Your task to perform on an android device: change timer sound Image 0: 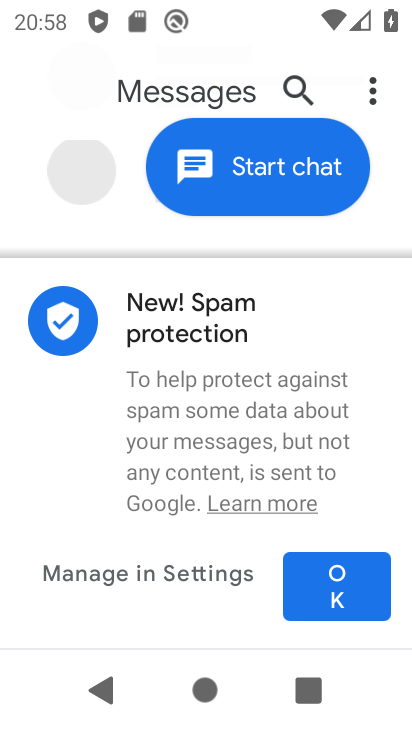
Step 0: press home button
Your task to perform on an android device: change timer sound Image 1: 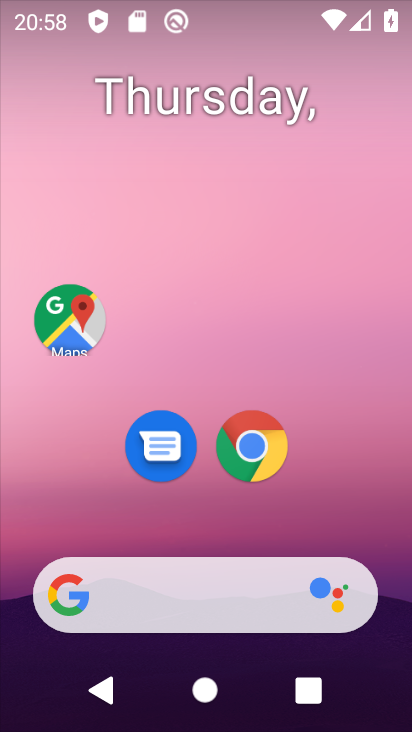
Step 1: drag from (385, 656) to (254, 161)
Your task to perform on an android device: change timer sound Image 2: 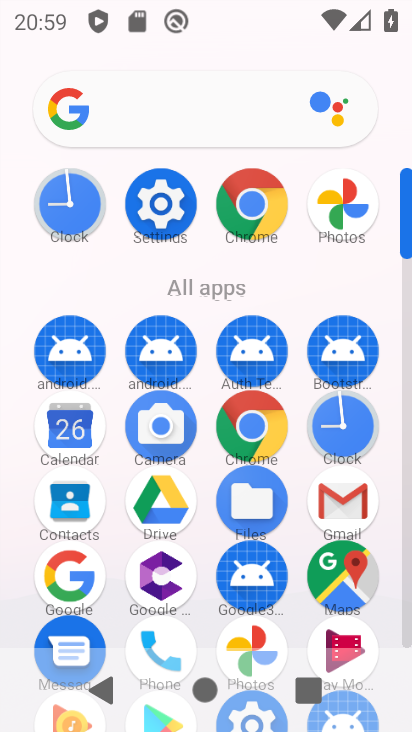
Step 2: click (323, 406)
Your task to perform on an android device: change timer sound Image 3: 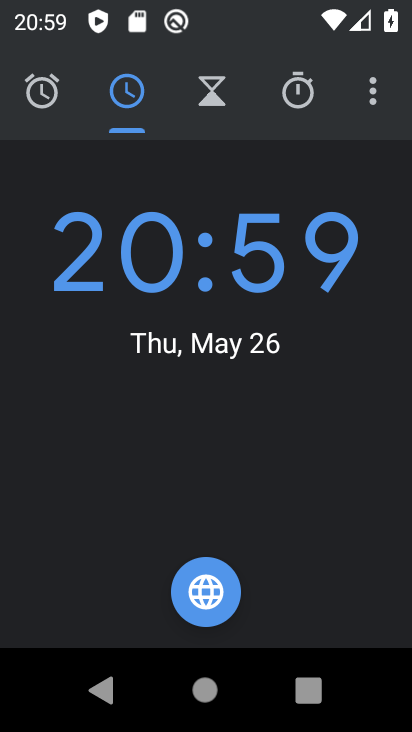
Step 3: click (379, 103)
Your task to perform on an android device: change timer sound Image 4: 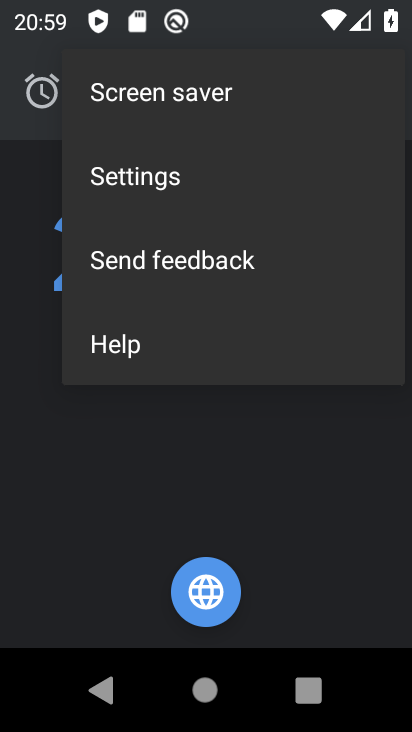
Step 4: click (102, 182)
Your task to perform on an android device: change timer sound Image 5: 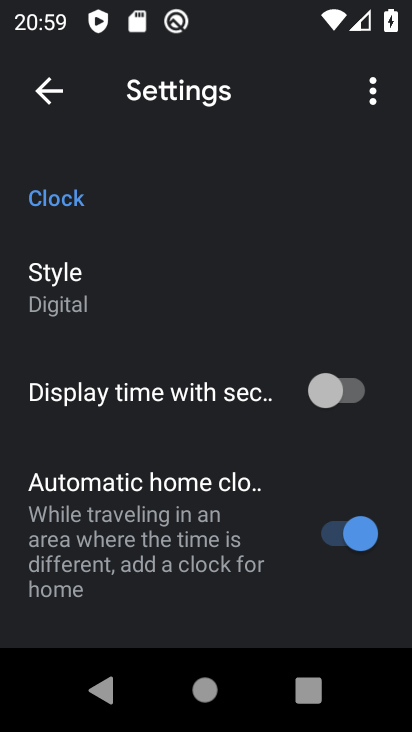
Step 5: drag from (218, 487) to (263, 140)
Your task to perform on an android device: change timer sound Image 6: 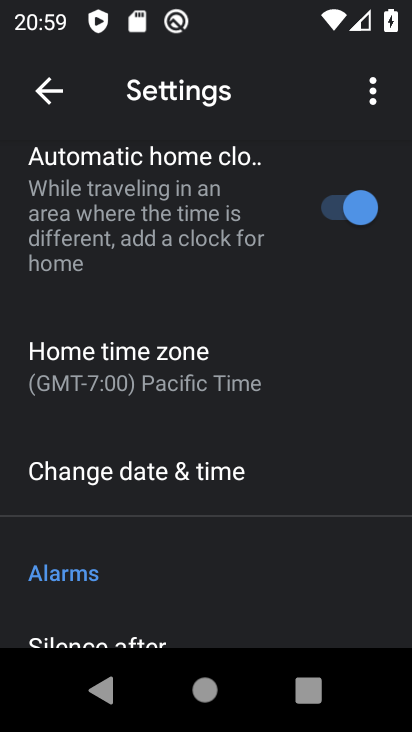
Step 6: drag from (300, 371) to (288, 86)
Your task to perform on an android device: change timer sound Image 7: 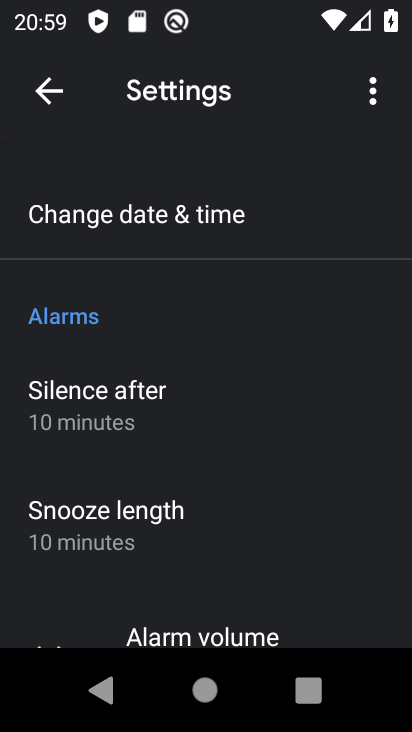
Step 7: drag from (378, 470) to (363, 84)
Your task to perform on an android device: change timer sound Image 8: 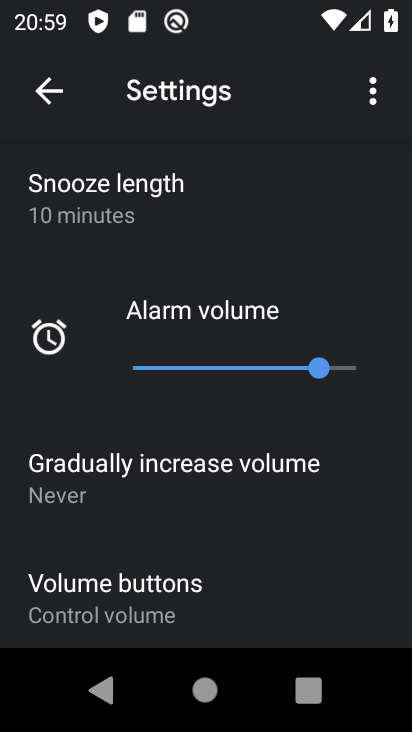
Step 8: drag from (238, 560) to (312, 120)
Your task to perform on an android device: change timer sound Image 9: 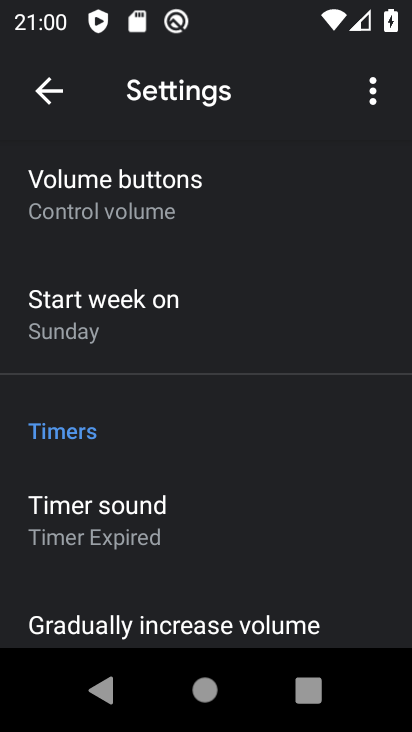
Step 9: click (193, 522)
Your task to perform on an android device: change timer sound Image 10: 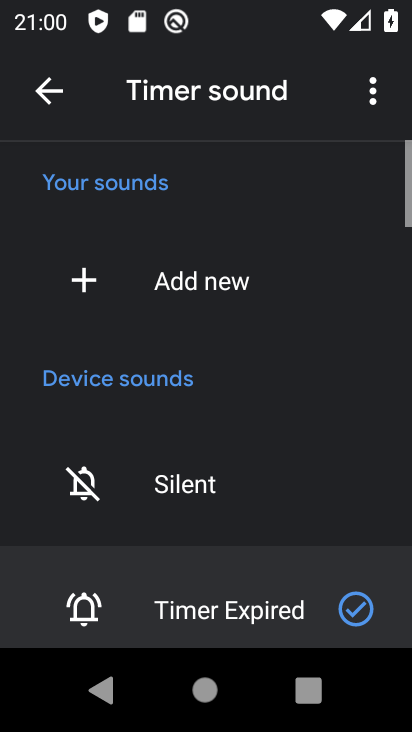
Step 10: drag from (193, 522) to (204, 76)
Your task to perform on an android device: change timer sound Image 11: 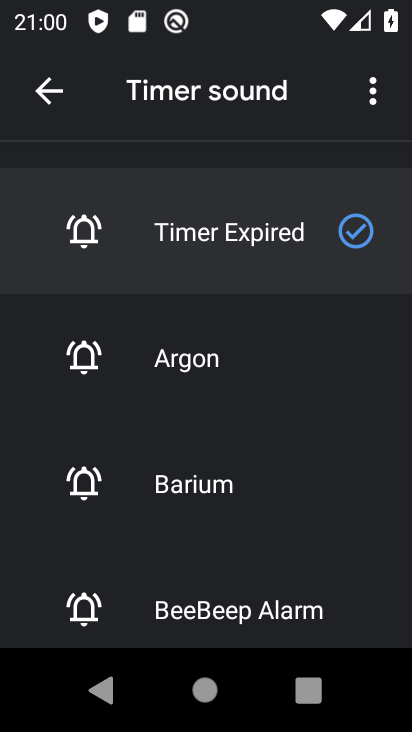
Step 11: click (275, 596)
Your task to perform on an android device: change timer sound Image 12: 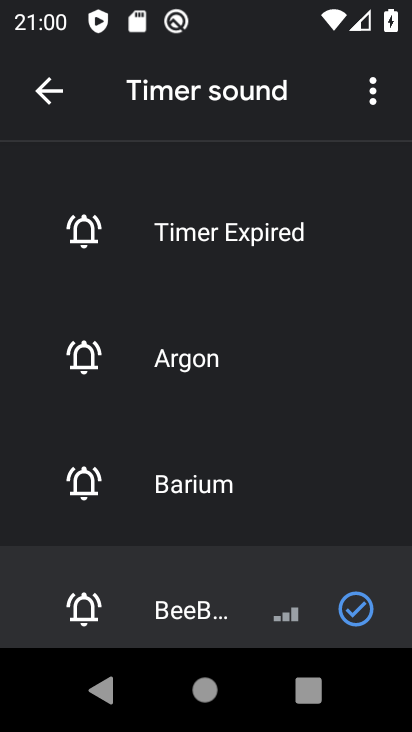
Step 12: task complete